Your task to perform on an android device: install app "Adobe Acrobat Reader: Edit PDF" Image 0: 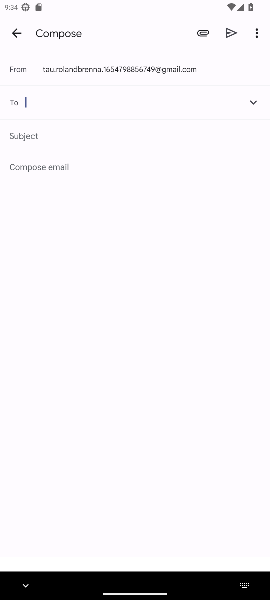
Step 0: press home button
Your task to perform on an android device: install app "Adobe Acrobat Reader: Edit PDF" Image 1: 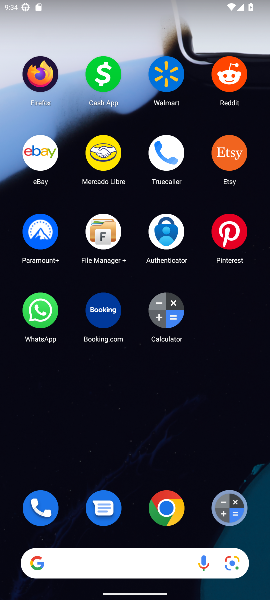
Step 1: drag from (244, 556) to (206, 34)
Your task to perform on an android device: install app "Adobe Acrobat Reader: Edit PDF" Image 2: 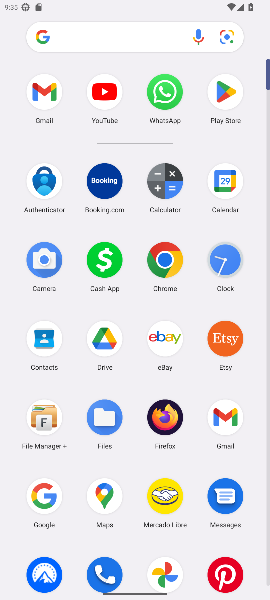
Step 2: click (220, 95)
Your task to perform on an android device: install app "Adobe Acrobat Reader: Edit PDF" Image 3: 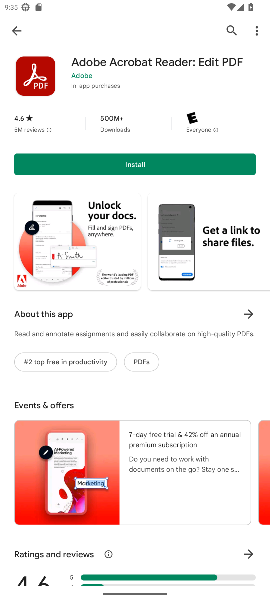
Step 3: click (122, 161)
Your task to perform on an android device: install app "Adobe Acrobat Reader: Edit PDF" Image 4: 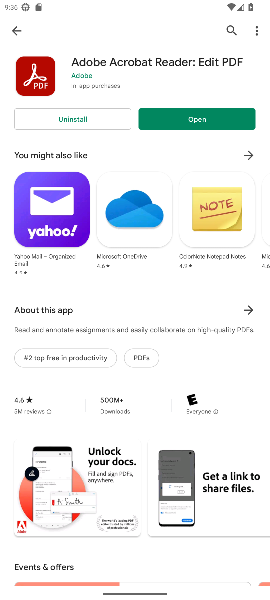
Step 4: task complete